Your task to perform on an android device: toggle translation in the chrome app Image 0: 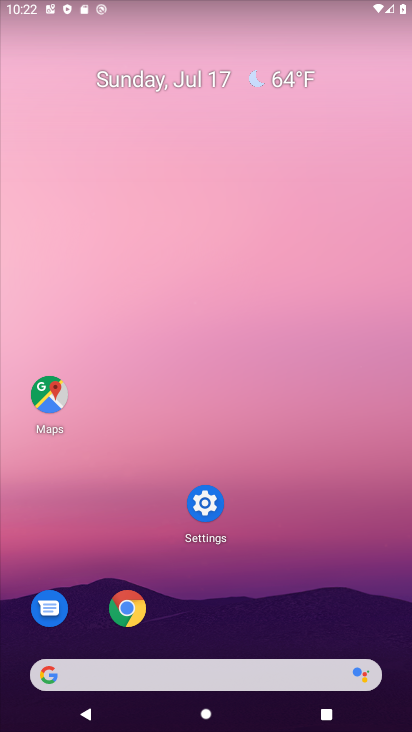
Step 0: click (119, 601)
Your task to perform on an android device: toggle translation in the chrome app Image 1: 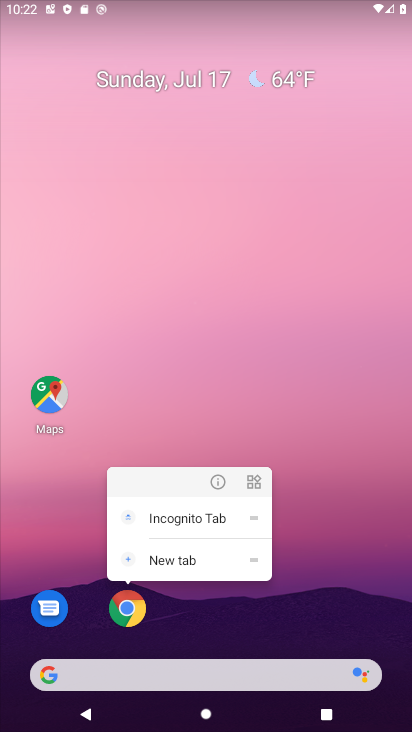
Step 1: click (117, 601)
Your task to perform on an android device: toggle translation in the chrome app Image 2: 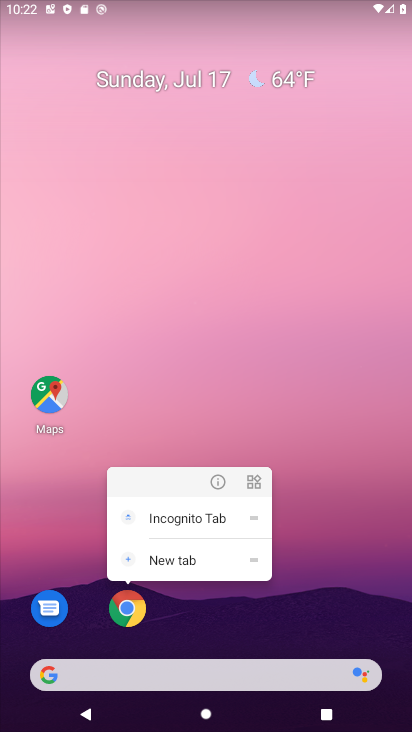
Step 2: click (124, 613)
Your task to perform on an android device: toggle translation in the chrome app Image 3: 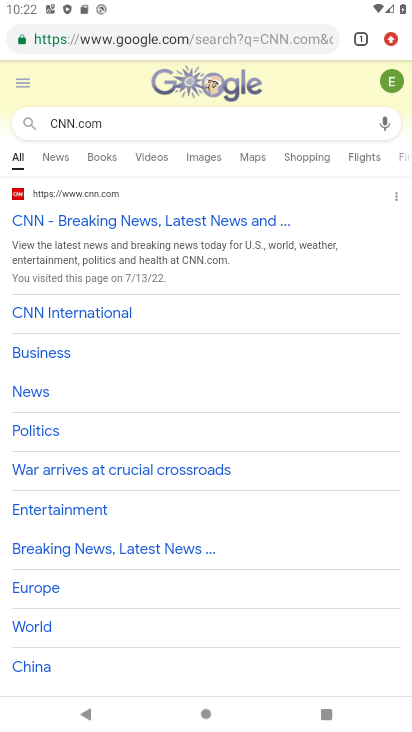
Step 3: click (395, 41)
Your task to perform on an android device: toggle translation in the chrome app Image 4: 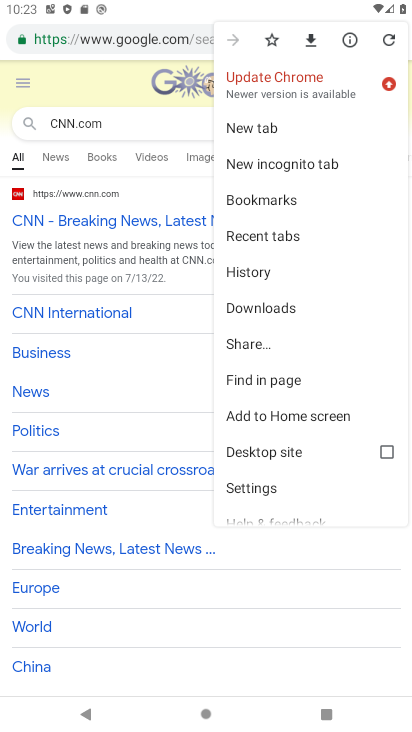
Step 4: click (253, 479)
Your task to perform on an android device: toggle translation in the chrome app Image 5: 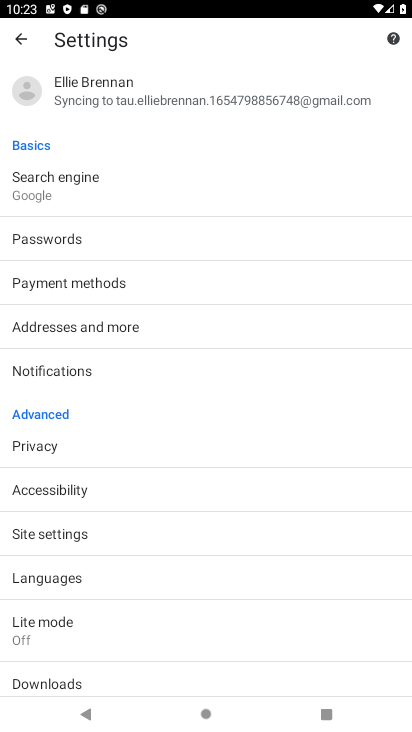
Step 5: click (74, 567)
Your task to perform on an android device: toggle translation in the chrome app Image 6: 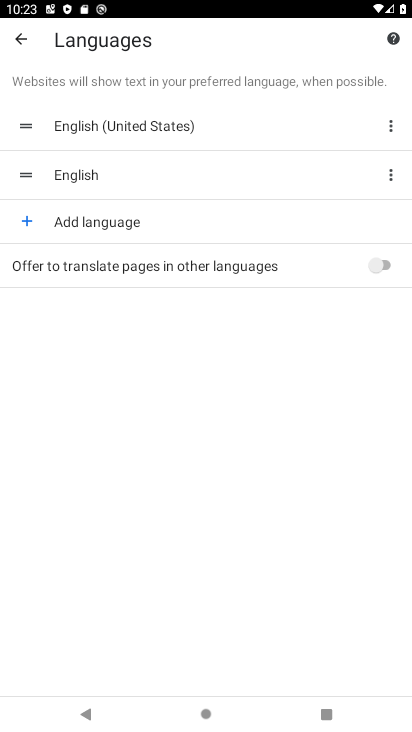
Step 6: click (377, 263)
Your task to perform on an android device: toggle translation in the chrome app Image 7: 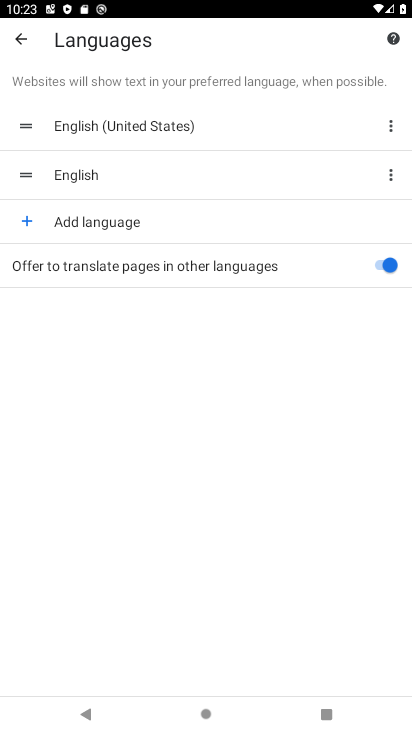
Step 7: task complete